Your task to perform on an android device: change keyboard looks Image 0: 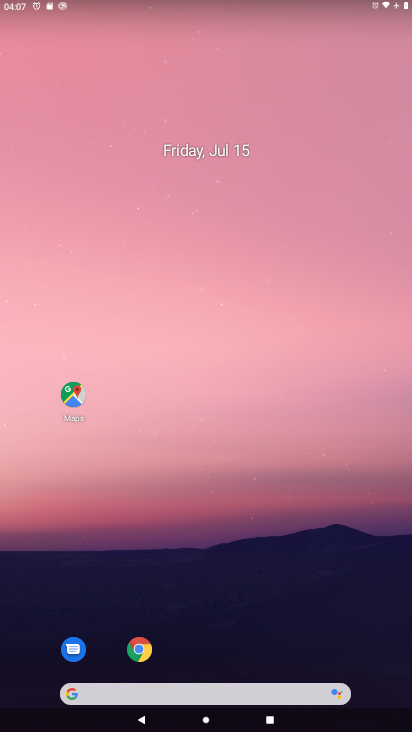
Step 0: drag from (393, 657) to (318, 120)
Your task to perform on an android device: change keyboard looks Image 1: 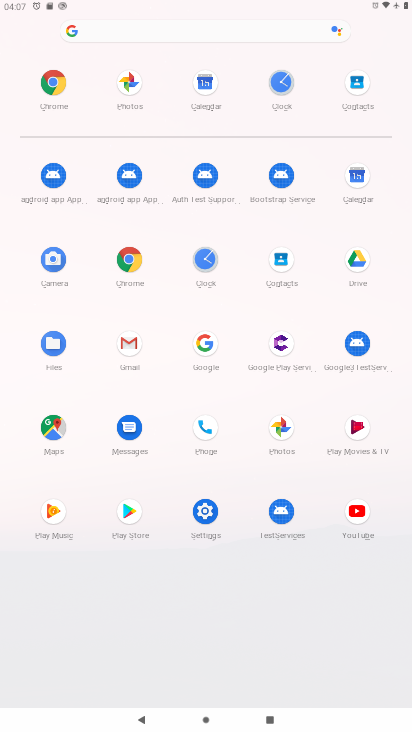
Step 1: click (204, 509)
Your task to perform on an android device: change keyboard looks Image 2: 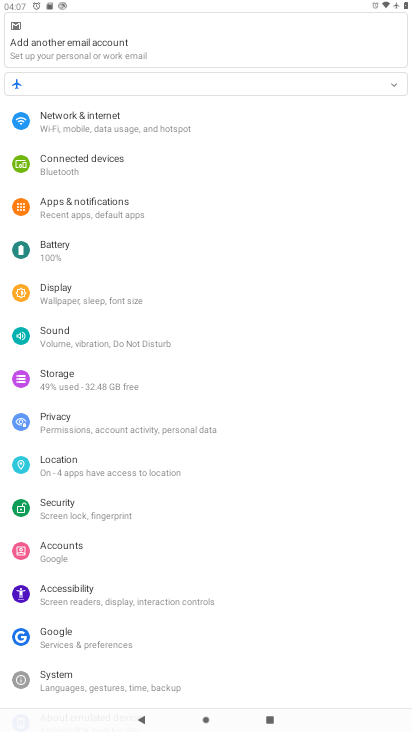
Step 2: drag from (236, 633) to (240, 274)
Your task to perform on an android device: change keyboard looks Image 3: 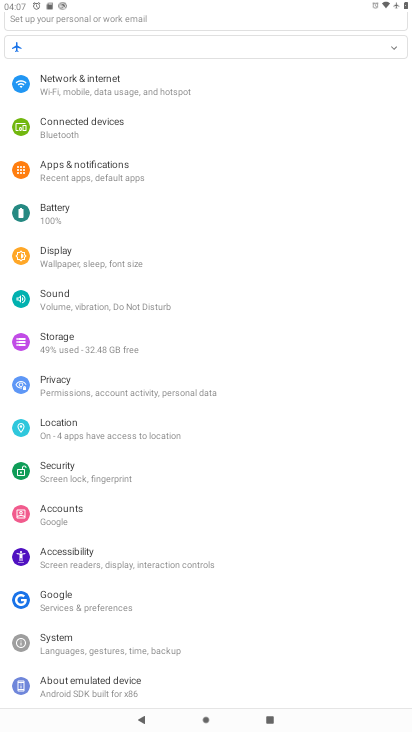
Step 3: click (74, 630)
Your task to perform on an android device: change keyboard looks Image 4: 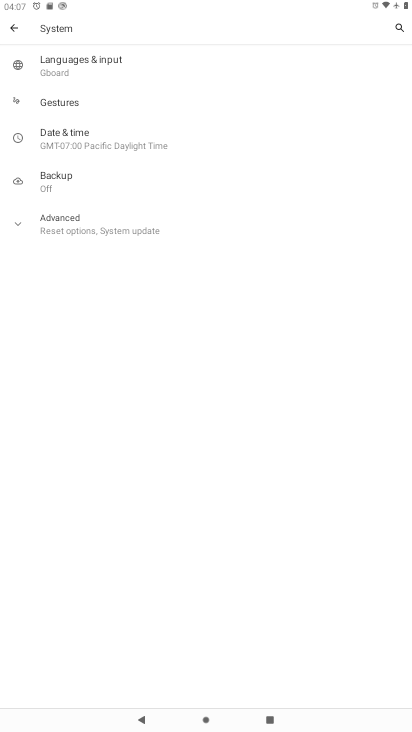
Step 4: click (54, 55)
Your task to perform on an android device: change keyboard looks Image 5: 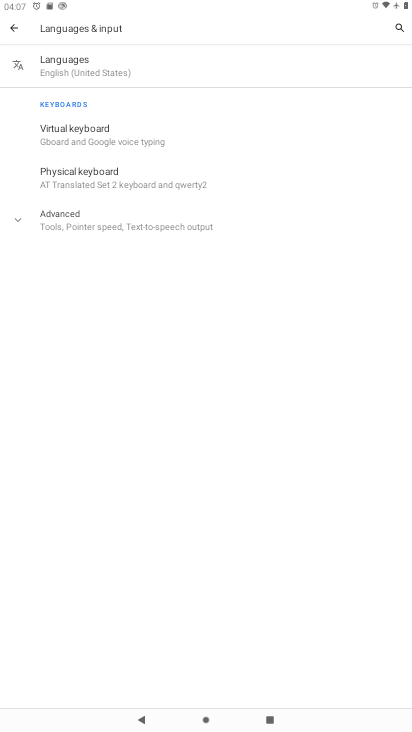
Step 5: click (77, 177)
Your task to perform on an android device: change keyboard looks Image 6: 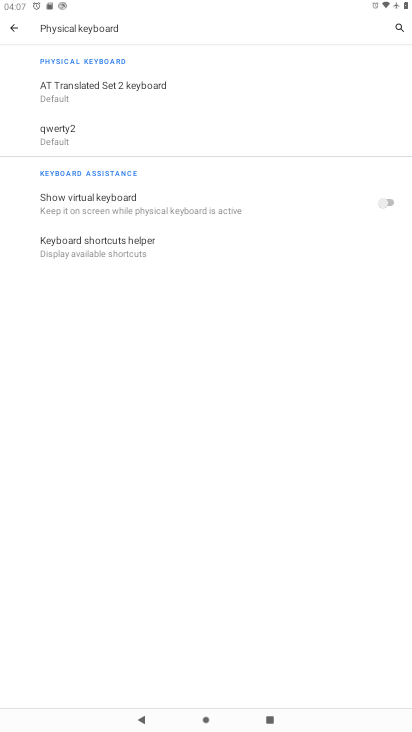
Step 6: click (61, 136)
Your task to perform on an android device: change keyboard looks Image 7: 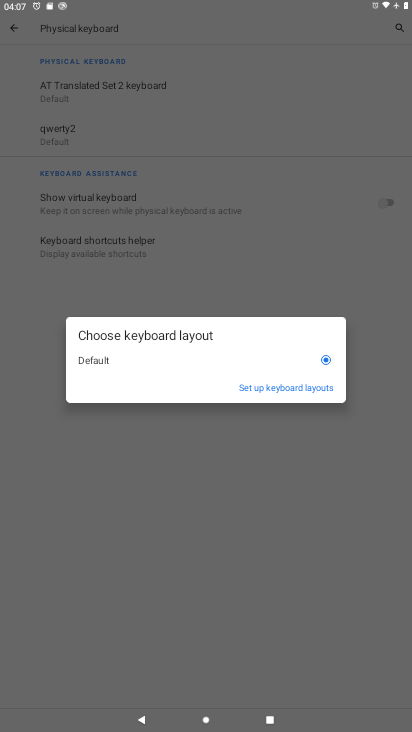
Step 7: click (278, 387)
Your task to perform on an android device: change keyboard looks Image 8: 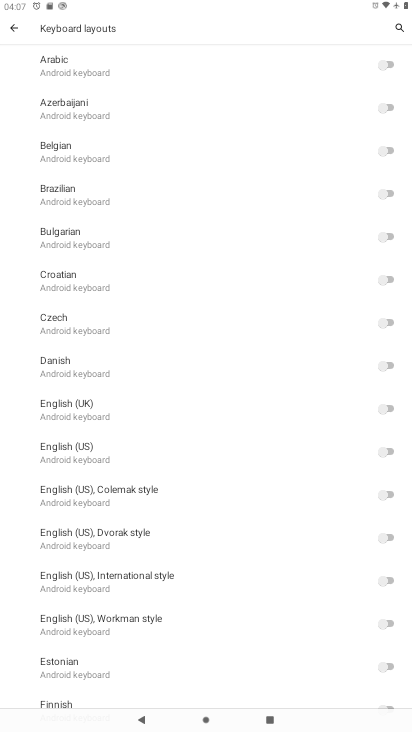
Step 8: click (389, 404)
Your task to perform on an android device: change keyboard looks Image 9: 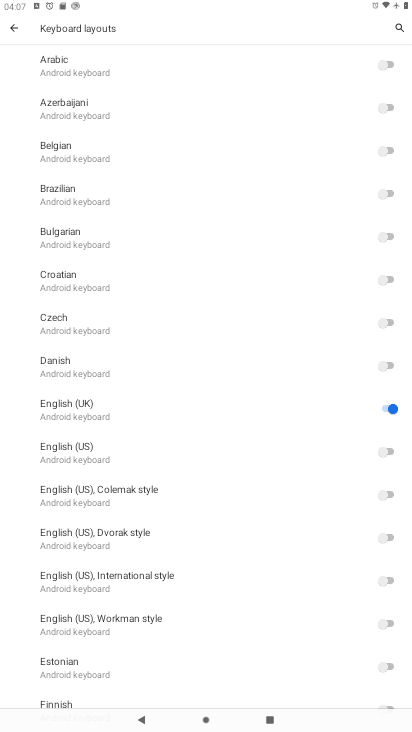
Step 9: task complete